Your task to perform on an android device: Open settings on Google Maps Image 0: 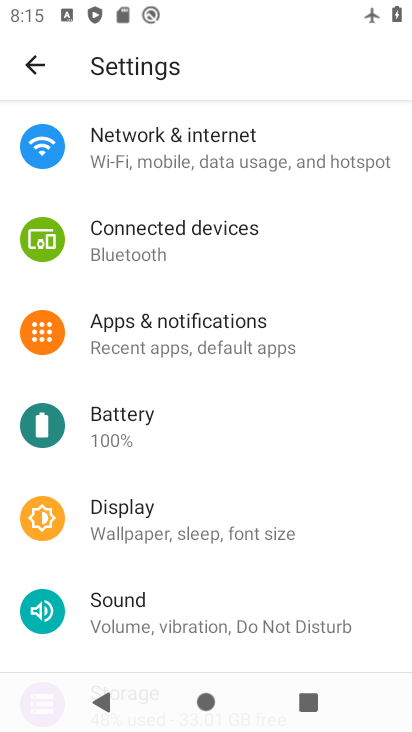
Step 0: press home button
Your task to perform on an android device: Open settings on Google Maps Image 1: 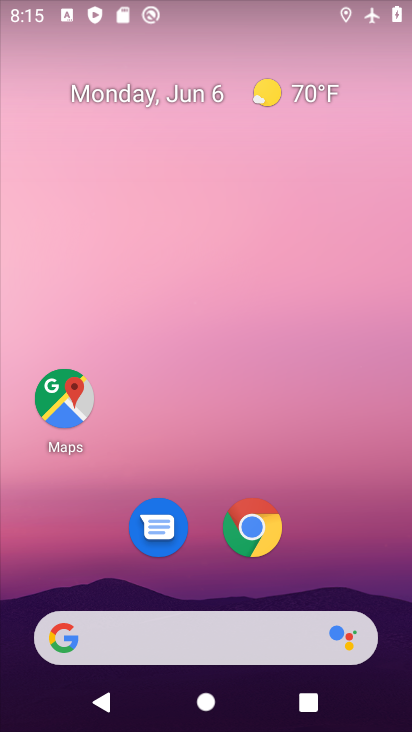
Step 1: drag from (166, 620) to (166, 356)
Your task to perform on an android device: Open settings on Google Maps Image 2: 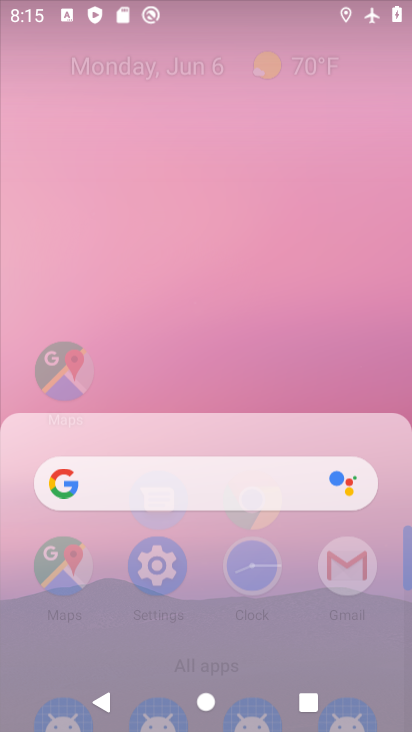
Step 2: drag from (163, 283) to (178, 170)
Your task to perform on an android device: Open settings on Google Maps Image 3: 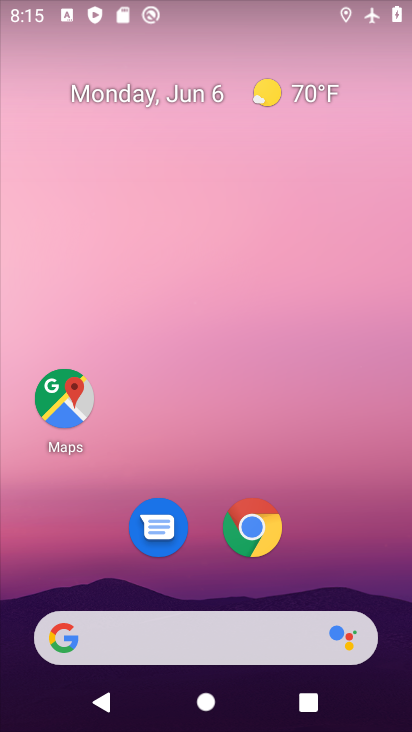
Step 3: drag from (192, 593) to (208, 173)
Your task to perform on an android device: Open settings on Google Maps Image 4: 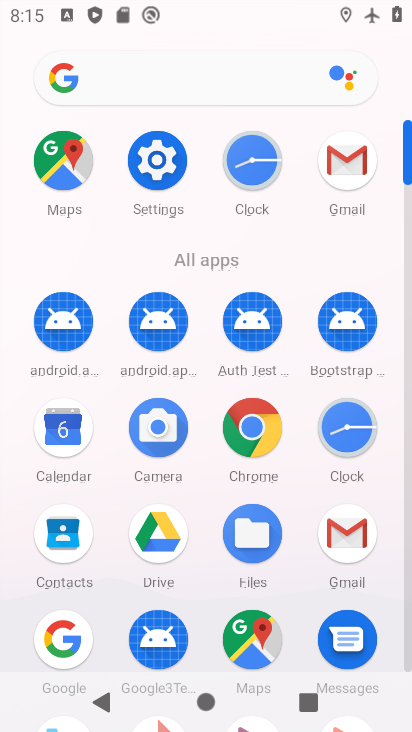
Step 4: click (76, 182)
Your task to perform on an android device: Open settings on Google Maps Image 5: 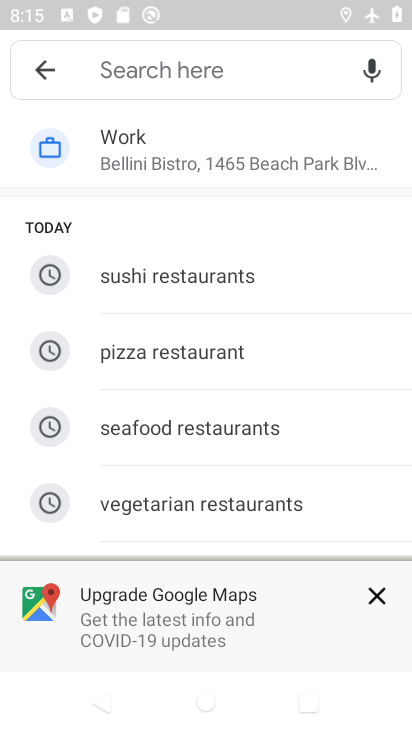
Step 5: click (44, 79)
Your task to perform on an android device: Open settings on Google Maps Image 6: 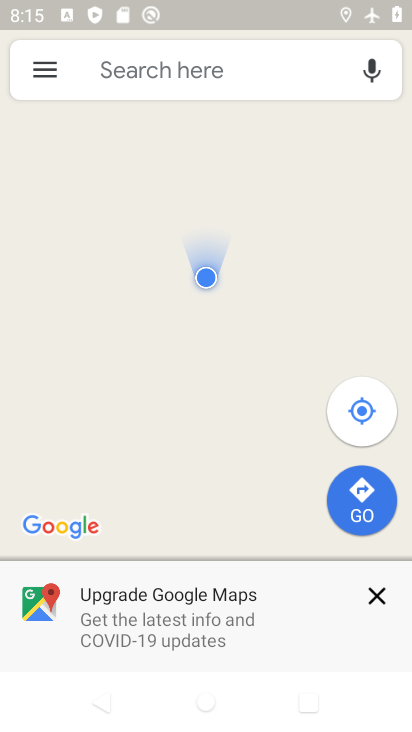
Step 6: click (44, 79)
Your task to perform on an android device: Open settings on Google Maps Image 7: 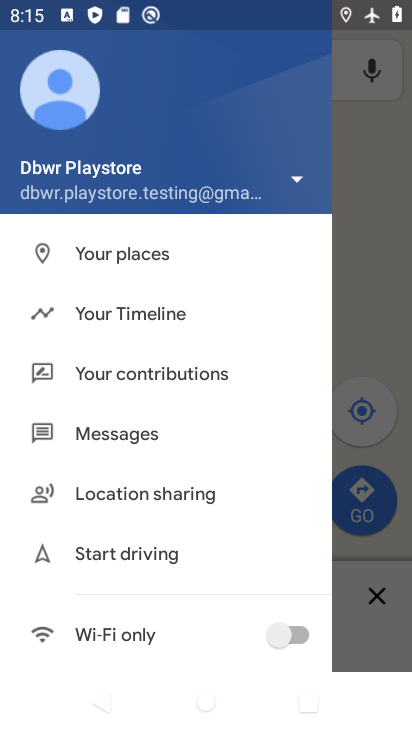
Step 7: drag from (114, 506) to (168, 204)
Your task to perform on an android device: Open settings on Google Maps Image 8: 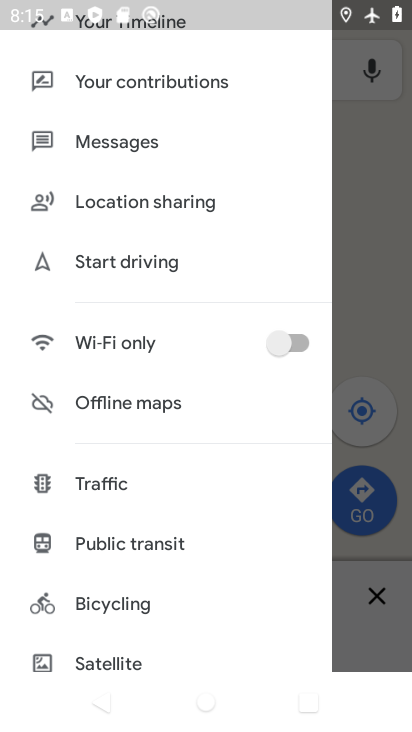
Step 8: drag from (128, 559) to (220, 275)
Your task to perform on an android device: Open settings on Google Maps Image 9: 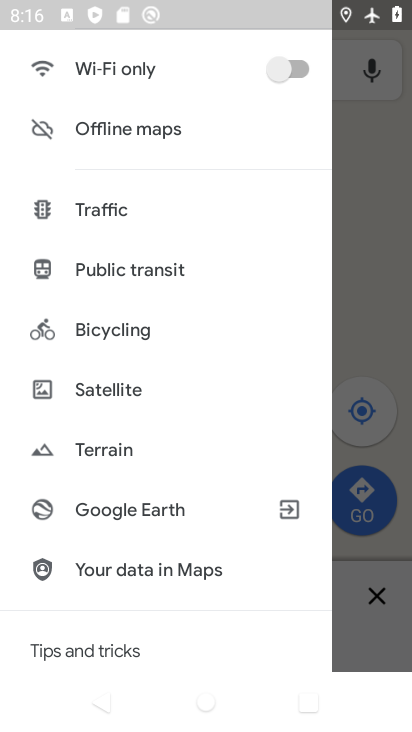
Step 9: drag from (149, 479) to (197, 354)
Your task to perform on an android device: Open settings on Google Maps Image 10: 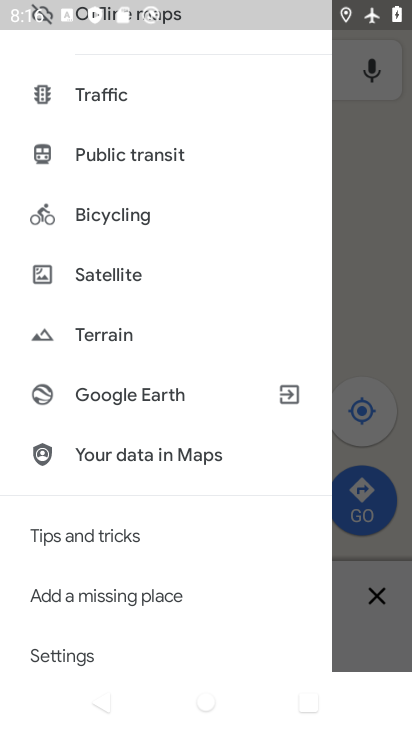
Step 10: click (78, 655)
Your task to perform on an android device: Open settings on Google Maps Image 11: 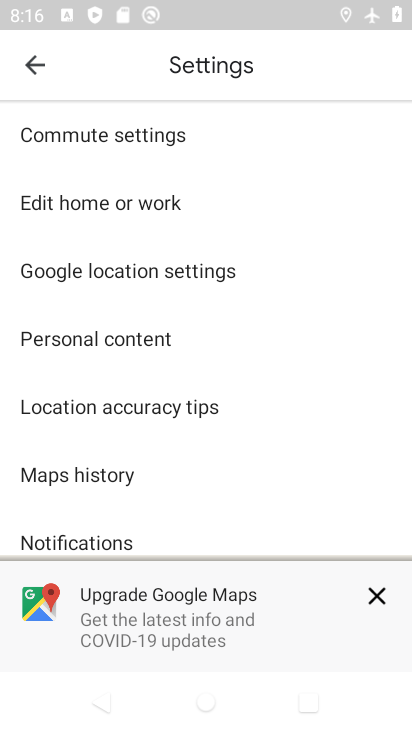
Step 11: task complete